Your task to perform on an android device: Go to privacy settings Image 0: 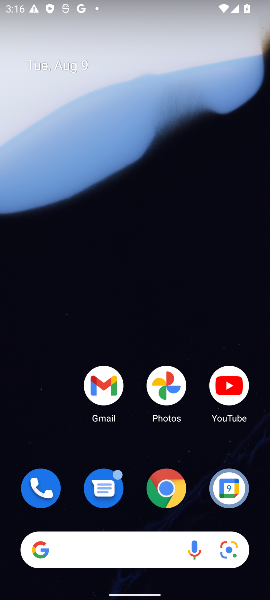
Step 0: drag from (208, 449) to (194, 51)
Your task to perform on an android device: Go to privacy settings Image 1: 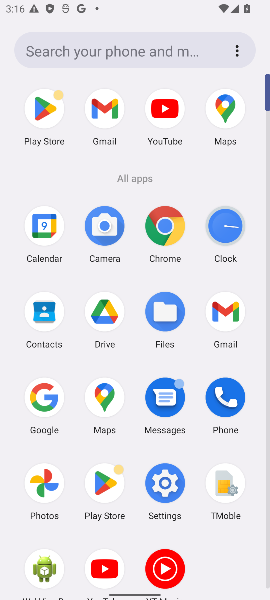
Step 1: click (156, 475)
Your task to perform on an android device: Go to privacy settings Image 2: 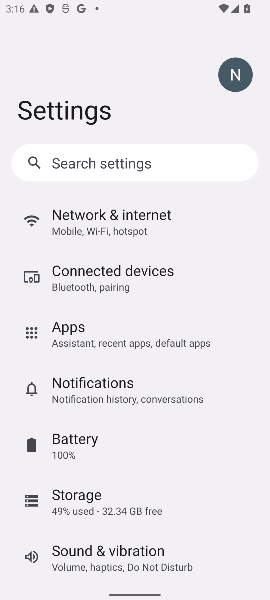
Step 2: drag from (212, 573) to (212, 33)
Your task to perform on an android device: Go to privacy settings Image 3: 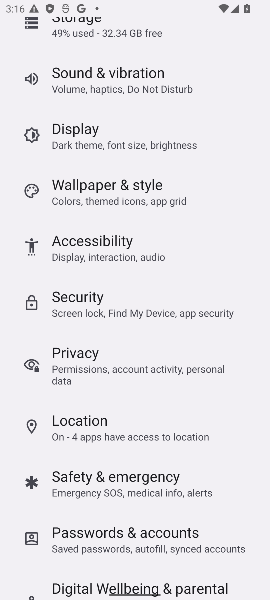
Step 3: click (146, 356)
Your task to perform on an android device: Go to privacy settings Image 4: 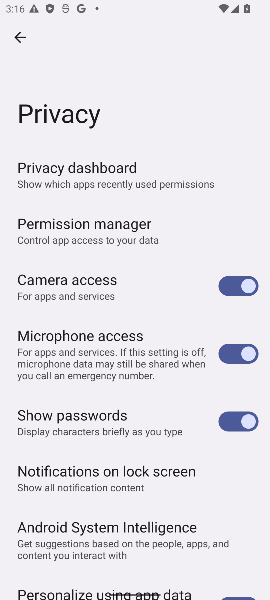
Step 4: task complete